Your task to perform on an android device: open wifi settings Image 0: 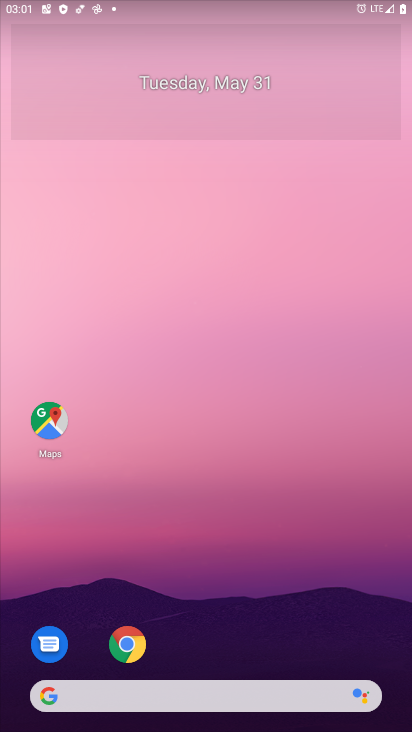
Step 0: drag from (294, 487) to (254, 110)
Your task to perform on an android device: open wifi settings Image 1: 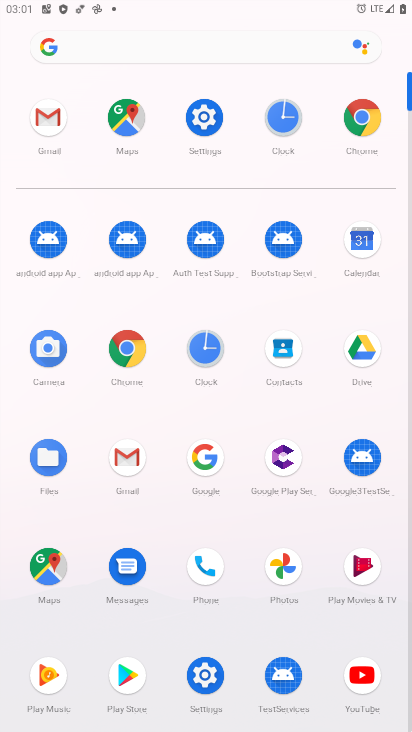
Step 1: click (213, 121)
Your task to perform on an android device: open wifi settings Image 2: 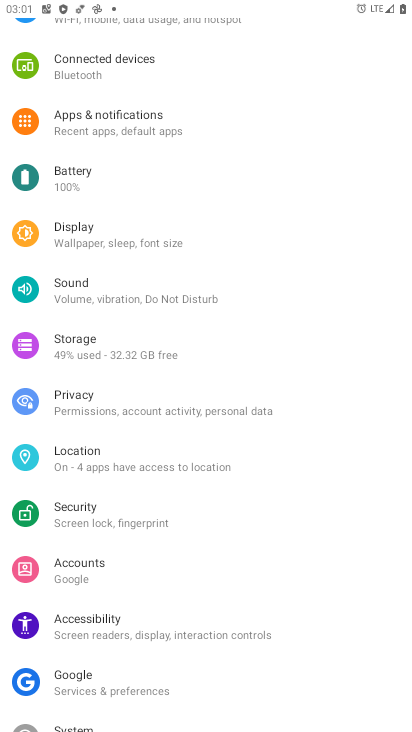
Step 2: drag from (158, 595) to (220, 731)
Your task to perform on an android device: open wifi settings Image 3: 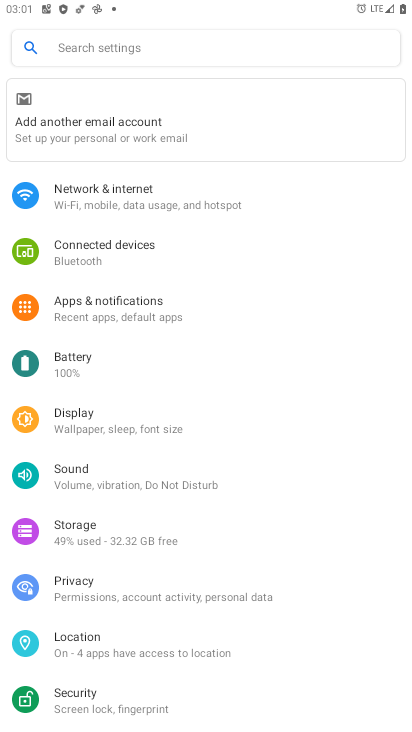
Step 3: click (133, 188)
Your task to perform on an android device: open wifi settings Image 4: 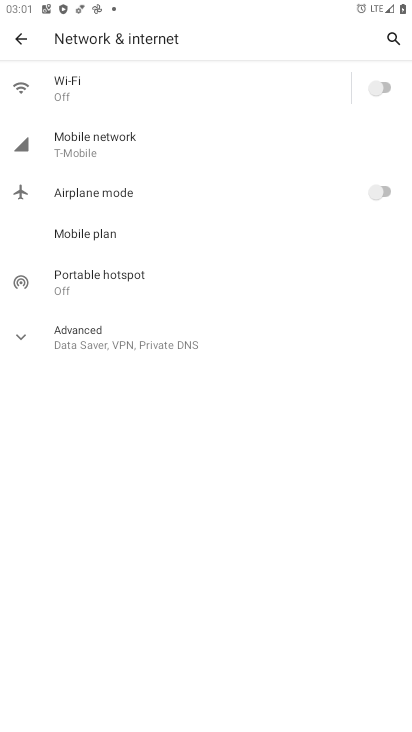
Step 4: click (98, 89)
Your task to perform on an android device: open wifi settings Image 5: 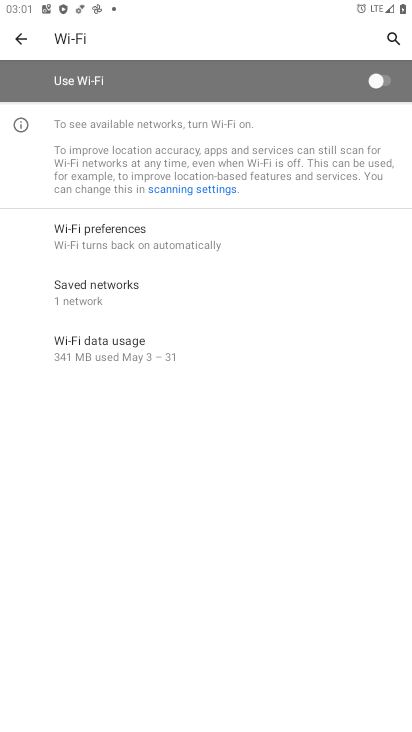
Step 5: click (396, 81)
Your task to perform on an android device: open wifi settings Image 6: 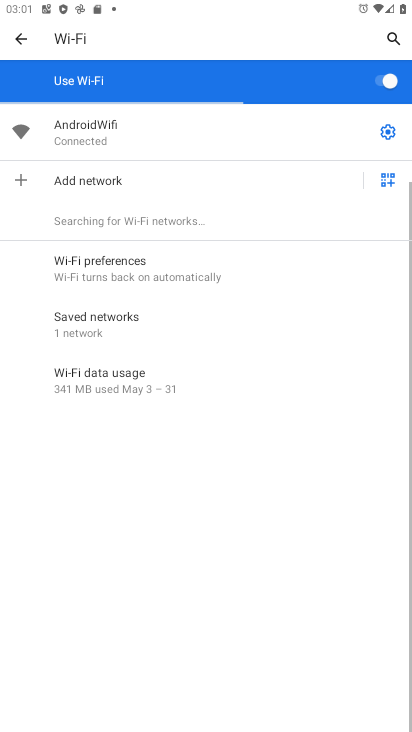
Step 6: click (395, 130)
Your task to perform on an android device: open wifi settings Image 7: 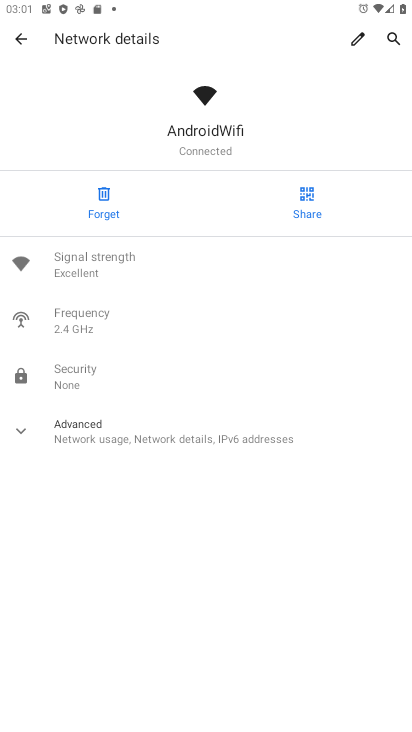
Step 7: task complete